Your task to perform on an android device: open a new tab in the chrome app Image 0: 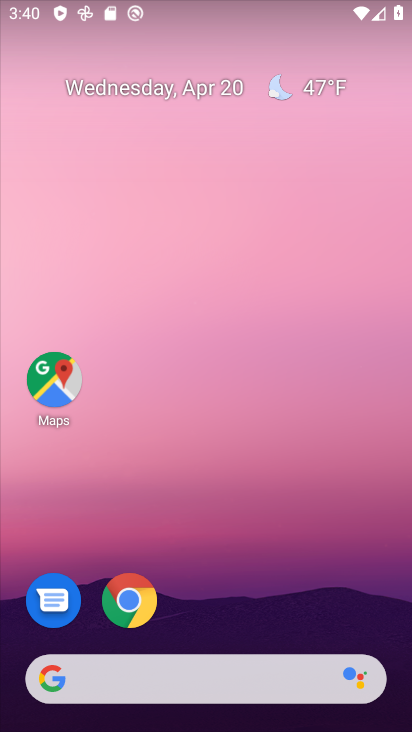
Step 0: drag from (300, 595) to (142, 97)
Your task to perform on an android device: open a new tab in the chrome app Image 1: 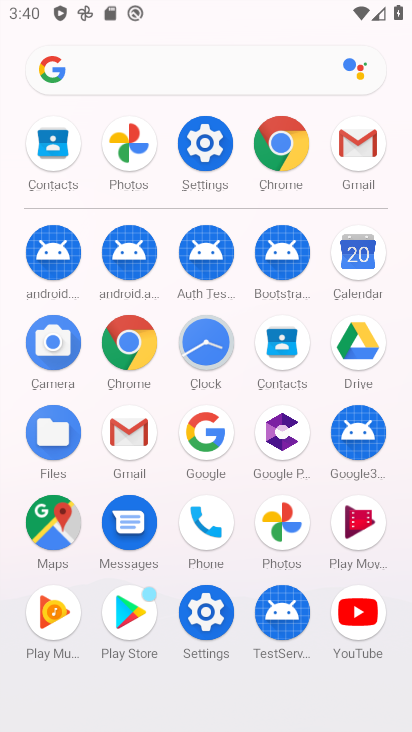
Step 1: click (280, 150)
Your task to perform on an android device: open a new tab in the chrome app Image 2: 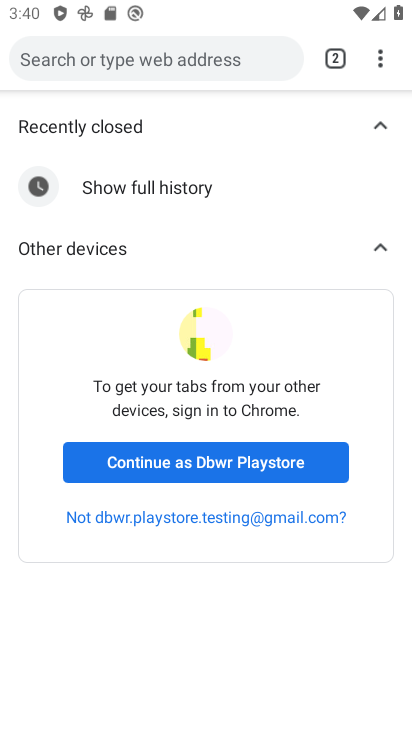
Step 2: task complete